Your task to perform on an android device: empty trash in google photos Image 0: 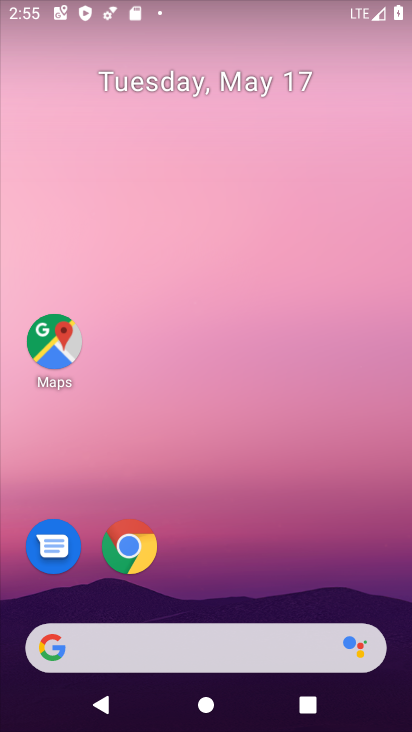
Step 0: press home button
Your task to perform on an android device: empty trash in google photos Image 1: 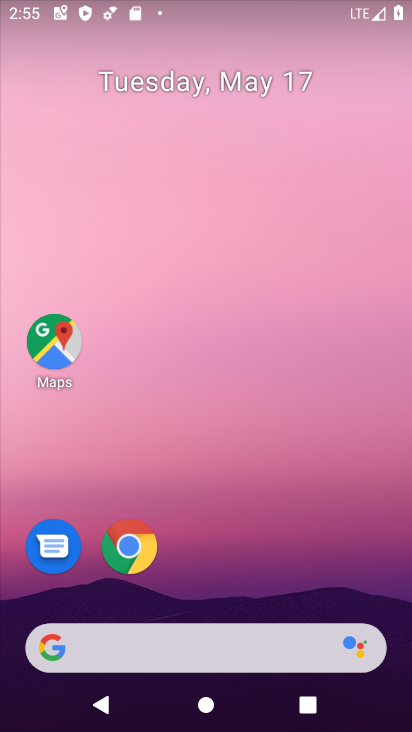
Step 1: drag from (312, 535) to (162, 103)
Your task to perform on an android device: empty trash in google photos Image 2: 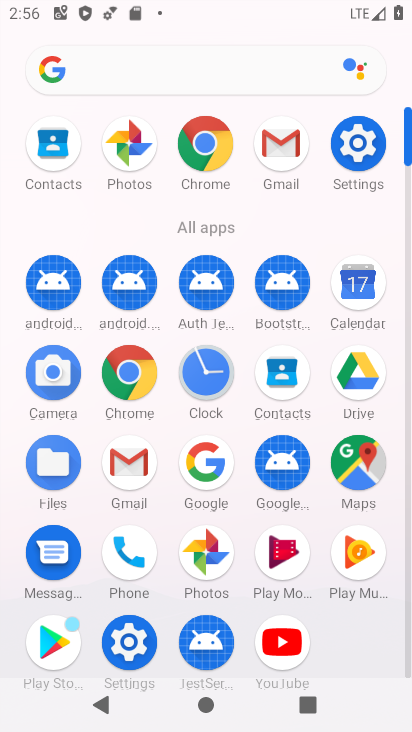
Step 2: click (208, 564)
Your task to perform on an android device: empty trash in google photos Image 3: 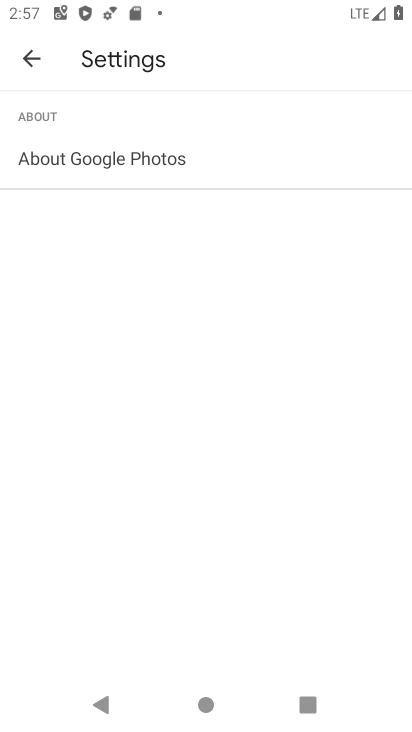
Step 3: press home button
Your task to perform on an android device: empty trash in google photos Image 4: 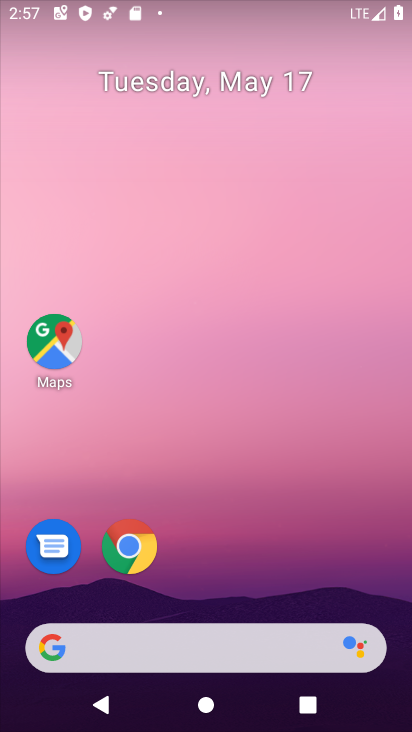
Step 4: drag from (243, 518) to (205, 23)
Your task to perform on an android device: empty trash in google photos Image 5: 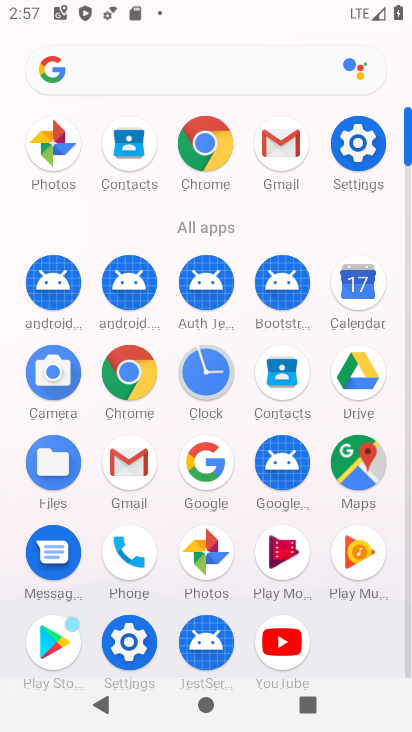
Step 5: click (210, 554)
Your task to perform on an android device: empty trash in google photos Image 6: 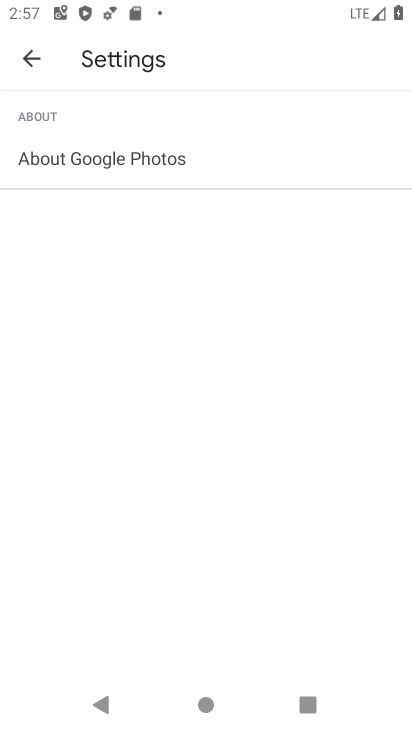
Step 6: click (47, 52)
Your task to perform on an android device: empty trash in google photos Image 7: 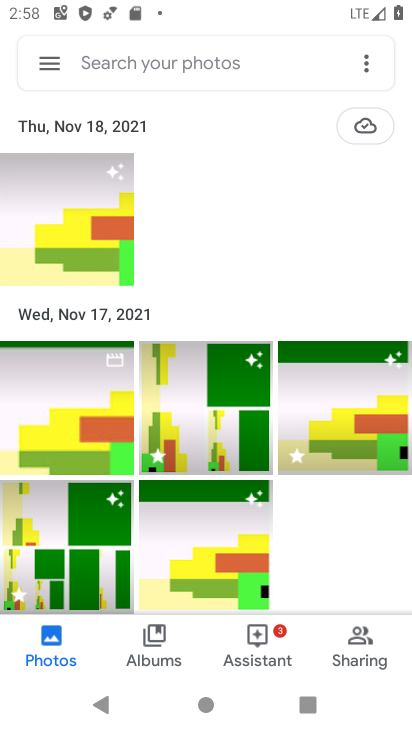
Step 7: click (63, 66)
Your task to perform on an android device: empty trash in google photos Image 8: 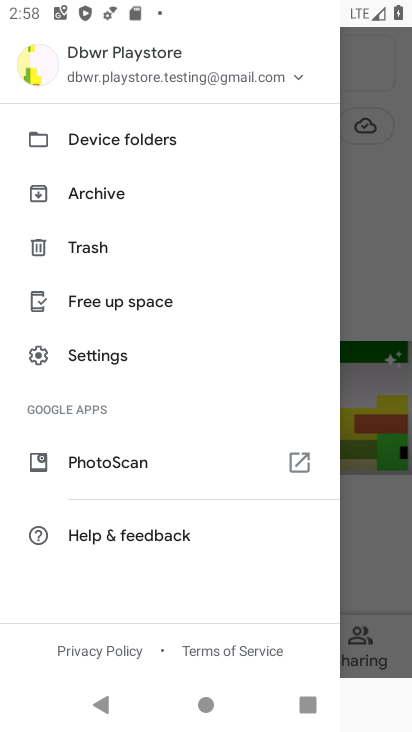
Step 8: click (45, 263)
Your task to perform on an android device: empty trash in google photos Image 9: 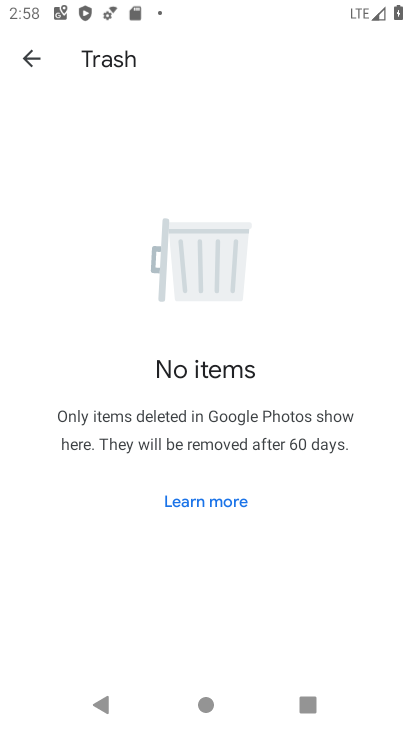
Step 9: task complete